Your task to perform on an android device: open a new tab in the chrome app Image 0: 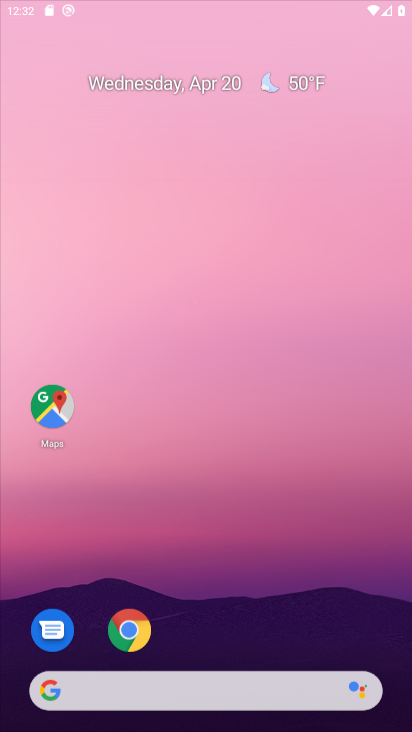
Step 0: drag from (256, 317) to (367, 145)
Your task to perform on an android device: open a new tab in the chrome app Image 1: 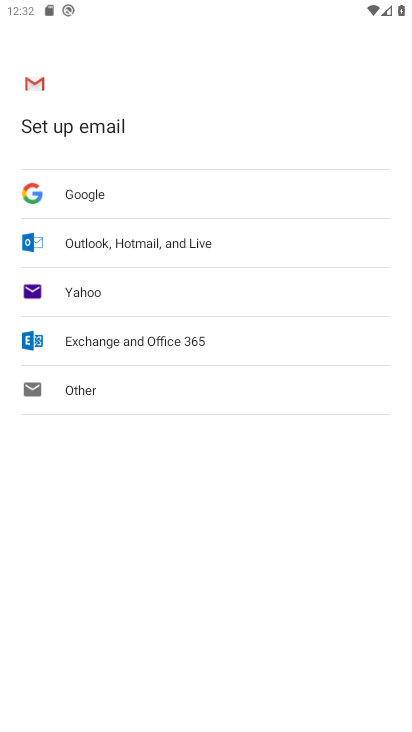
Step 1: press home button
Your task to perform on an android device: open a new tab in the chrome app Image 2: 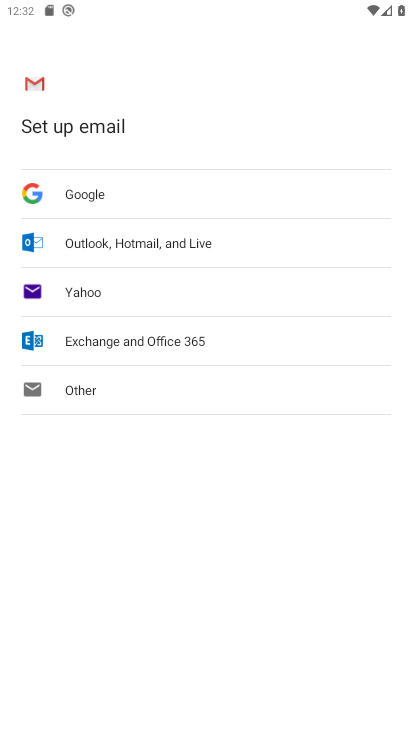
Step 2: click (351, 294)
Your task to perform on an android device: open a new tab in the chrome app Image 3: 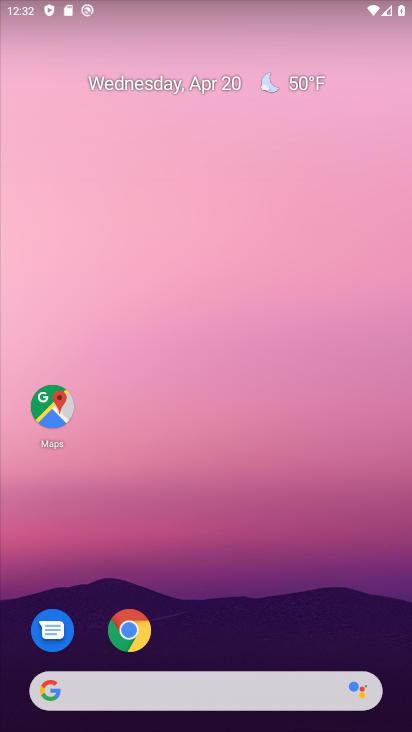
Step 3: click (131, 626)
Your task to perform on an android device: open a new tab in the chrome app Image 4: 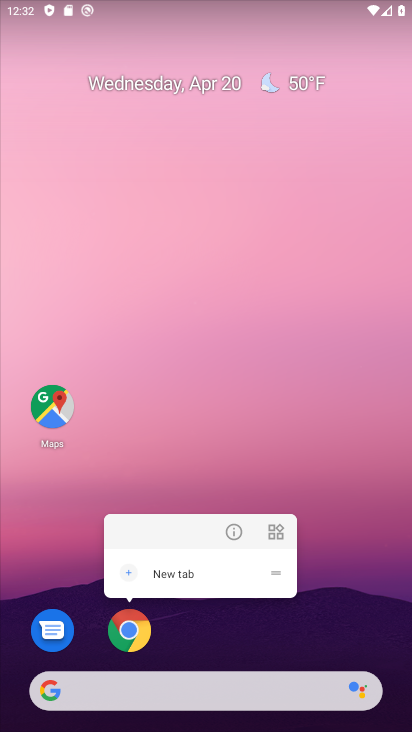
Step 4: click (132, 630)
Your task to perform on an android device: open a new tab in the chrome app Image 5: 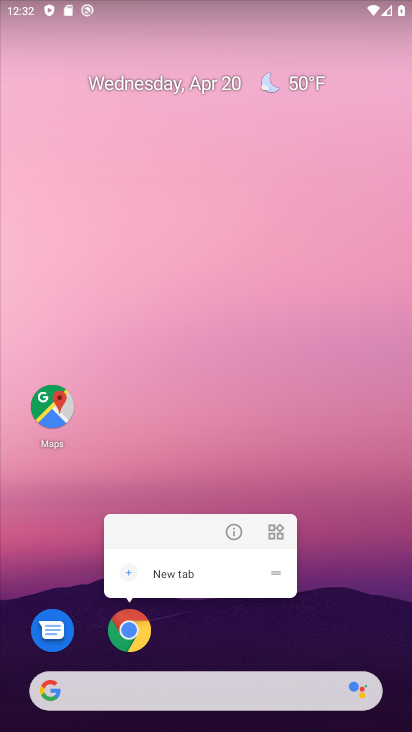
Step 5: click (132, 627)
Your task to perform on an android device: open a new tab in the chrome app Image 6: 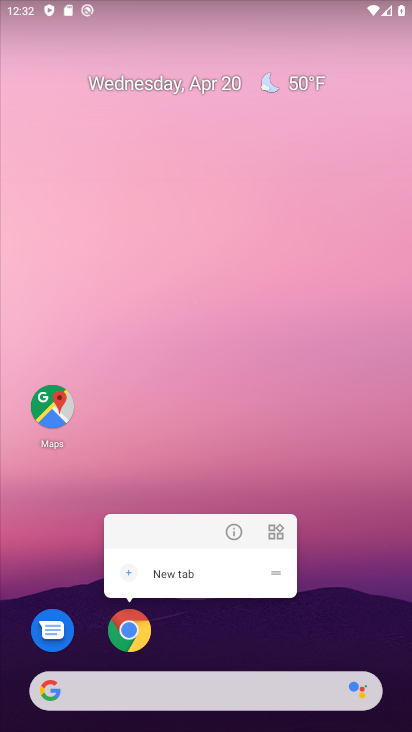
Step 6: click (207, 611)
Your task to perform on an android device: open a new tab in the chrome app Image 7: 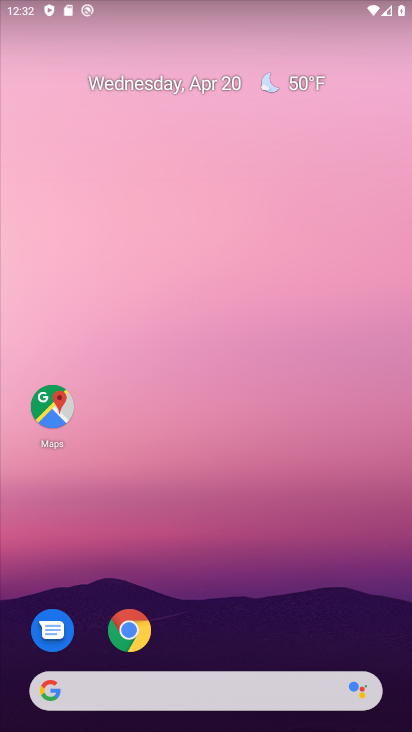
Step 7: click (131, 629)
Your task to perform on an android device: open a new tab in the chrome app Image 8: 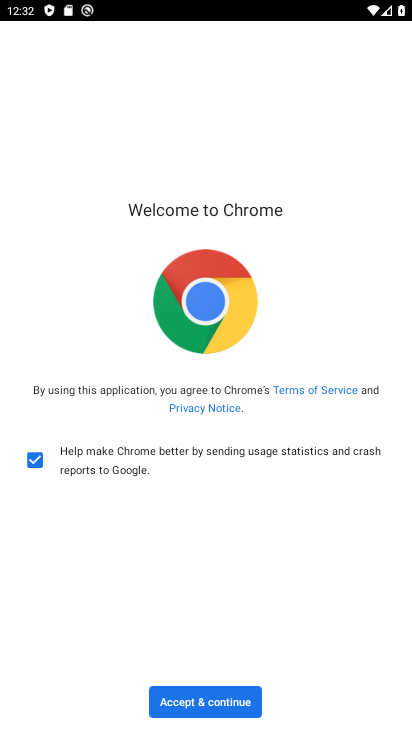
Step 8: click (224, 700)
Your task to perform on an android device: open a new tab in the chrome app Image 9: 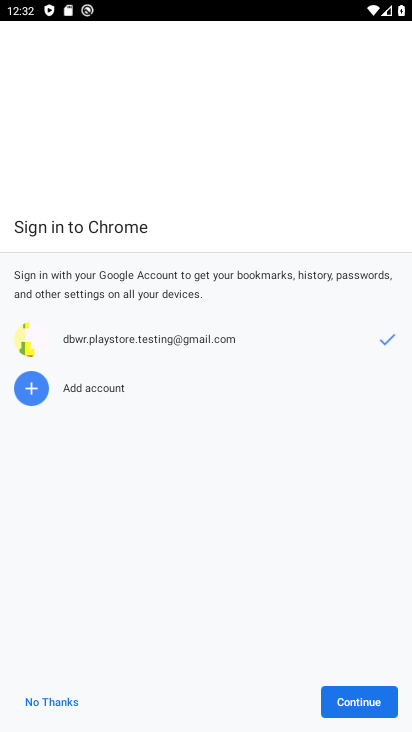
Step 9: click (352, 702)
Your task to perform on an android device: open a new tab in the chrome app Image 10: 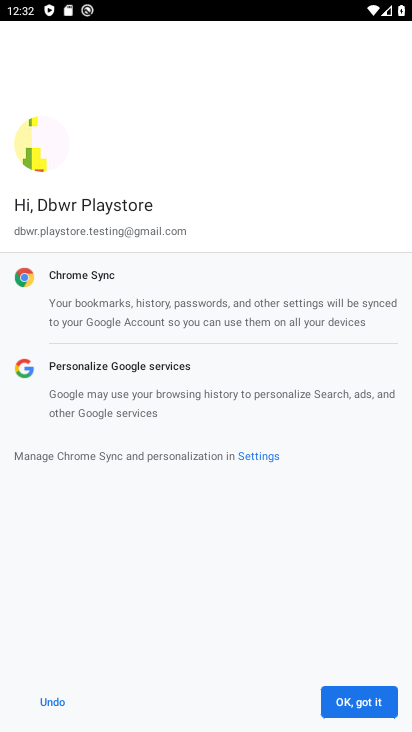
Step 10: click (352, 702)
Your task to perform on an android device: open a new tab in the chrome app Image 11: 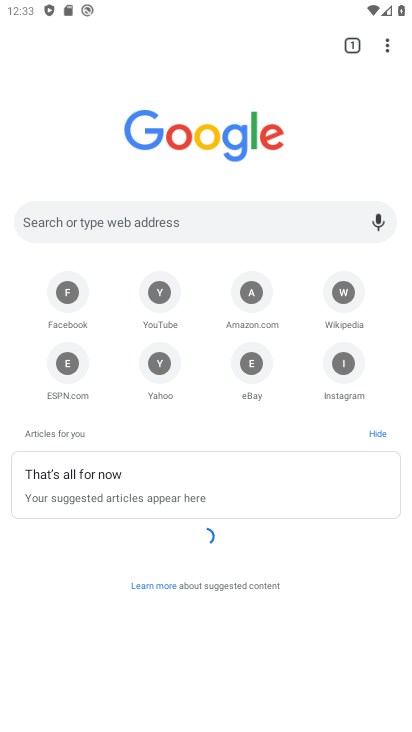
Step 11: click (351, 44)
Your task to perform on an android device: open a new tab in the chrome app Image 12: 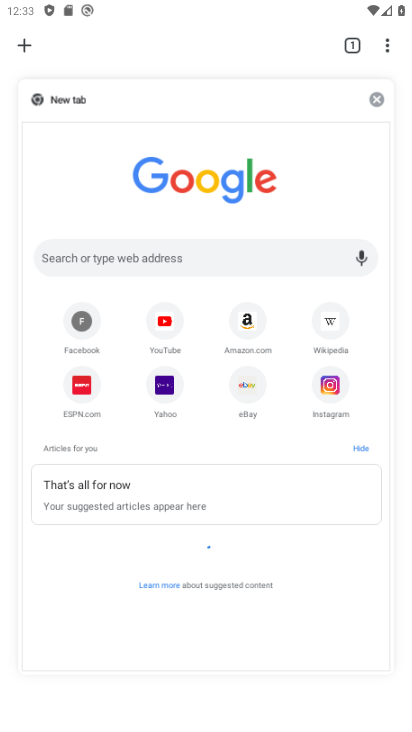
Step 12: click (23, 41)
Your task to perform on an android device: open a new tab in the chrome app Image 13: 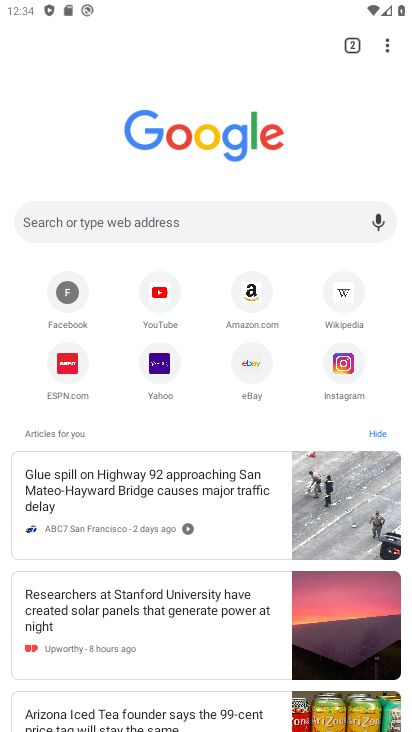
Step 13: task complete